Your task to perform on an android device: change text size in settings app Image 0: 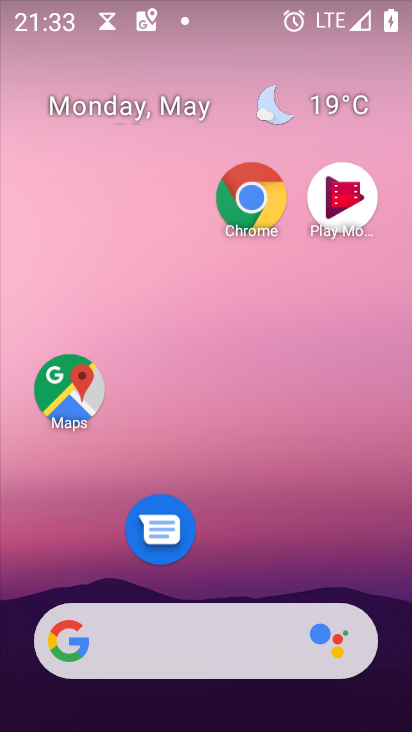
Step 0: drag from (251, 577) to (88, 1)
Your task to perform on an android device: change text size in settings app Image 1: 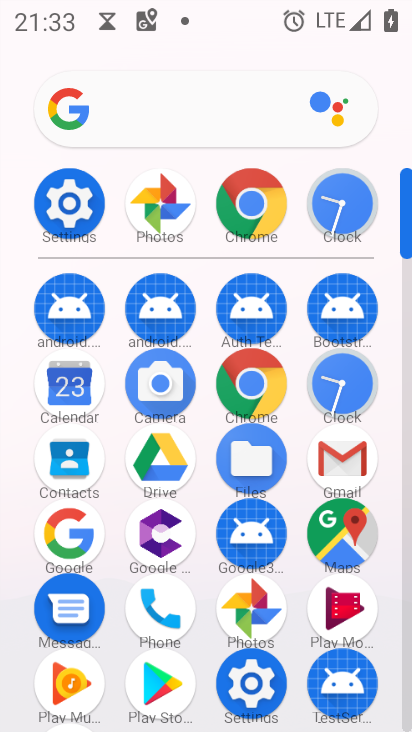
Step 1: click (76, 220)
Your task to perform on an android device: change text size in settings app Image 2: 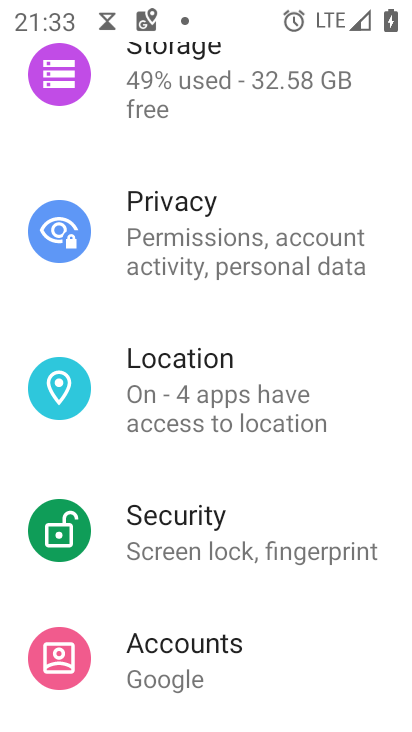
Step 2: drag from (196, 665) to (218, 262)
Your task to perform on an android device: change text size in settings app Image 3: 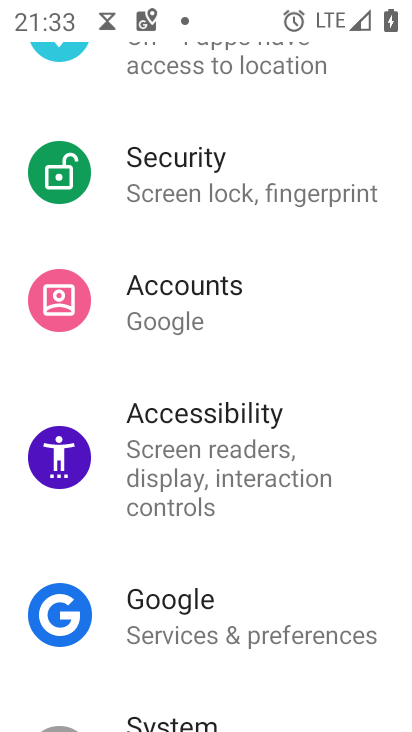
Step 3: drag from (230, 618) to (274, 311)
Your task to perform on an android device: change text size in settings app Image 4: 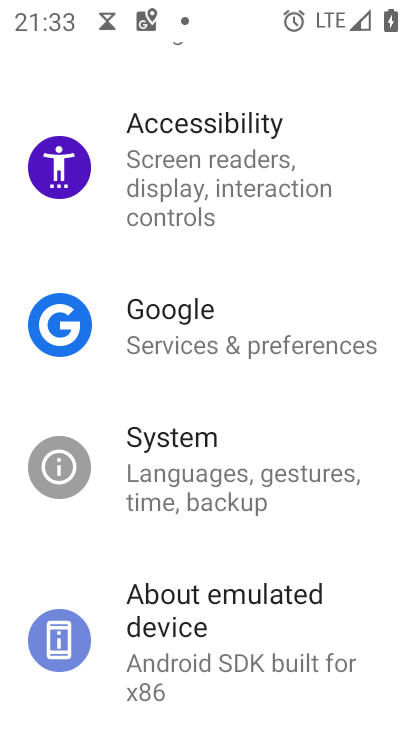
Step 4: drag from (245, 218) to (250, 670)
Your task to perform on an android device: change text size in settings app Image 5: 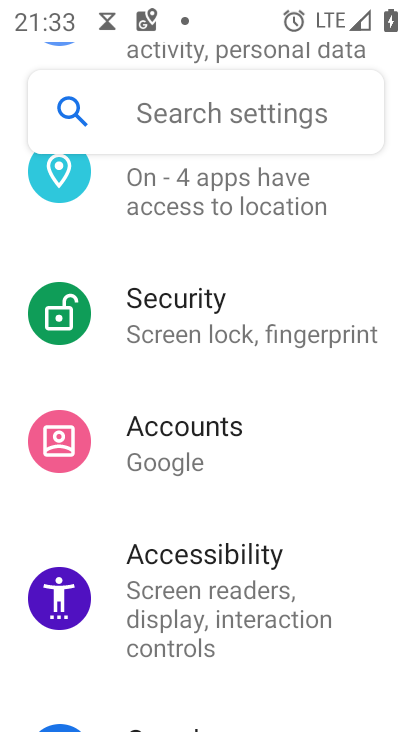
Step 5: drag from (242, 235) to (239, 645)
Your task to perform on an android device: change text size in settings app Image 6: 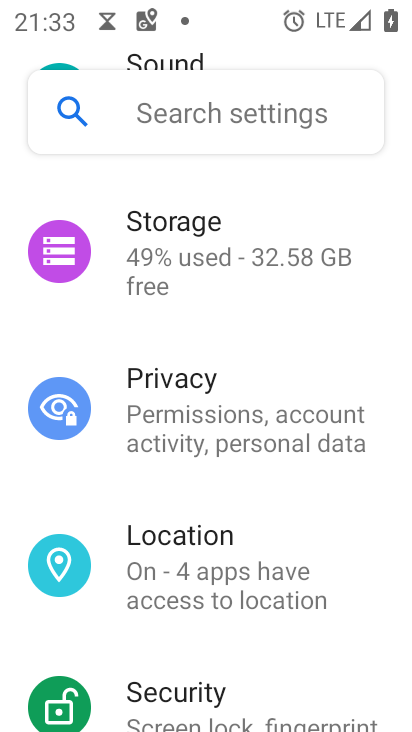
Step 6: drag from (216, 442) to (210, 729)
Your task to perform on an android device: change text size in settings app Image 7: 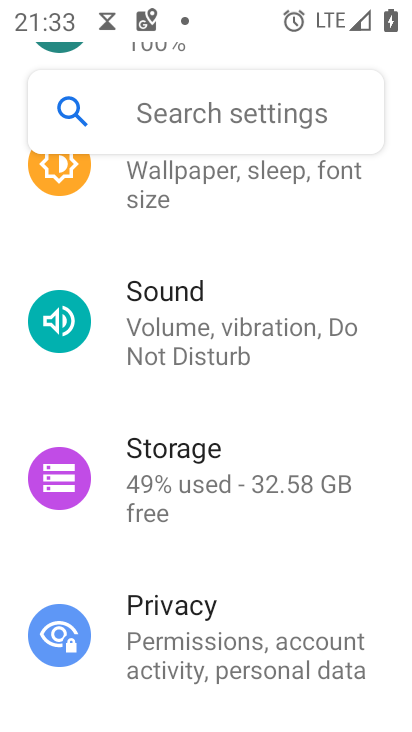
Step 7: drag from (225, 375) to (201, 722)
Your task to perform on an android device: change text size in settings app Image 8: 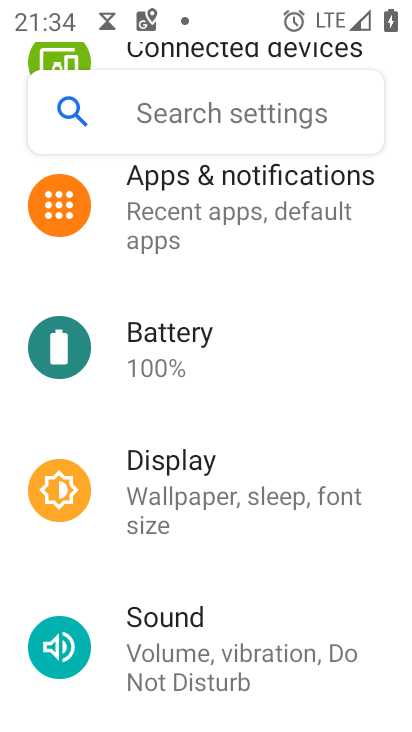
Step 8: click (110, 507)
Your task to perform on an android device: change text size in settings app Image 9: 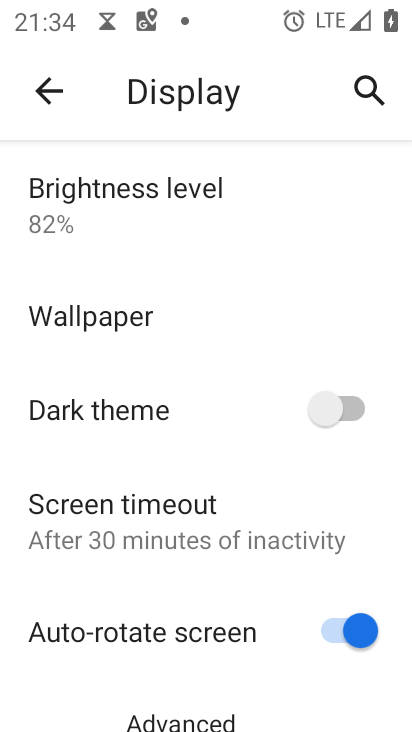
Step 9: drag from (111, 672) to (142, 262)
Your task to perform on an android device: change text size in settings app Image 10: 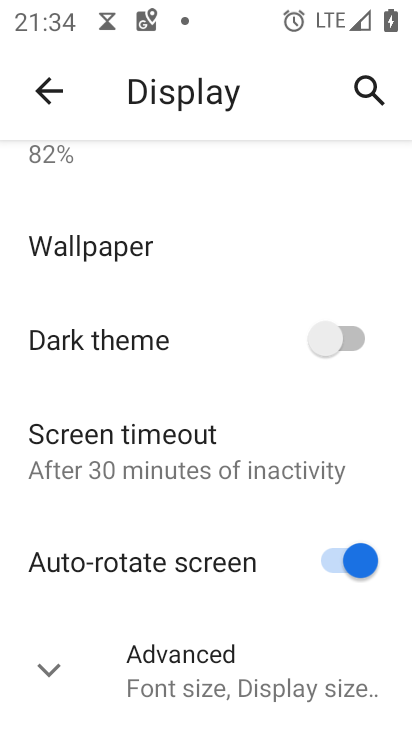
Step 10: click (161, 696)
Your task to perform on an android device: change text size in settings app Image 11: 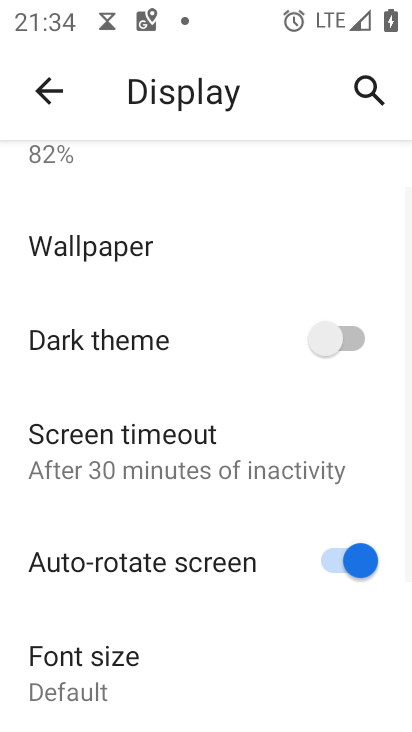
Step 11: drag from (120, 701) to (137, 432)
Your task to perform on an android device: change text size in settings app Image 12: 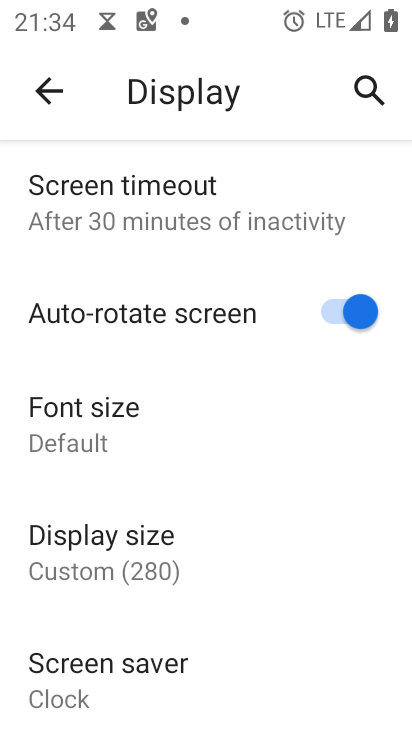
Step 12: click (100, 438)
Your task to perform on an android device: change text size in settings app Image 13: 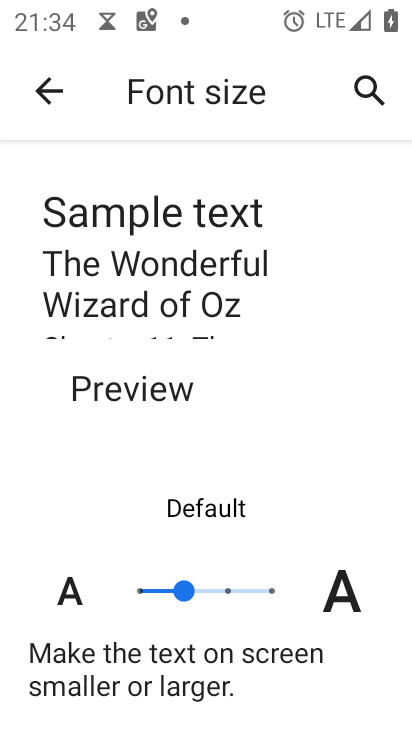
Step 13: click (232, 603)
Your task to perform on an android device: change text size in settings app Image 14: 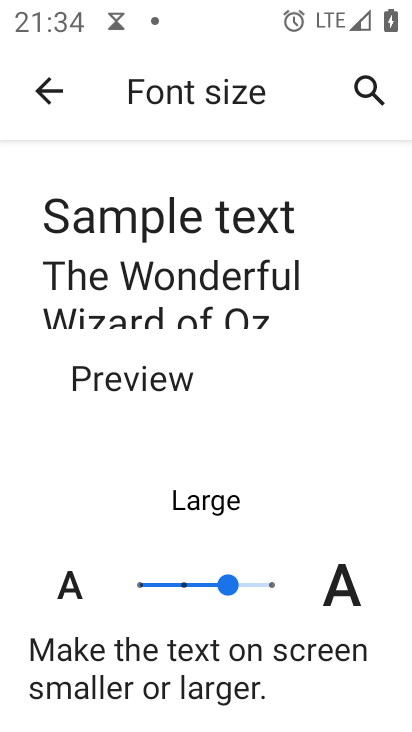
Step 14: task complete